Your task to perform on an android device: Add "apple airpods" to the cart on target Image 0: 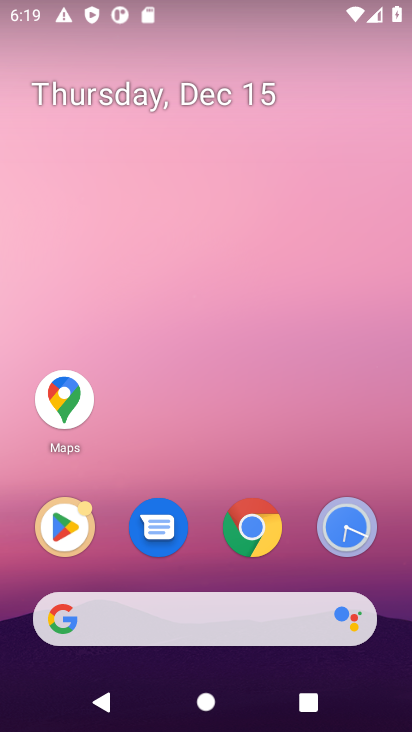
Step 0: click (249, 543)
Your task to perform on an android device: Add "apple airpods" to the cart on target Image 1: 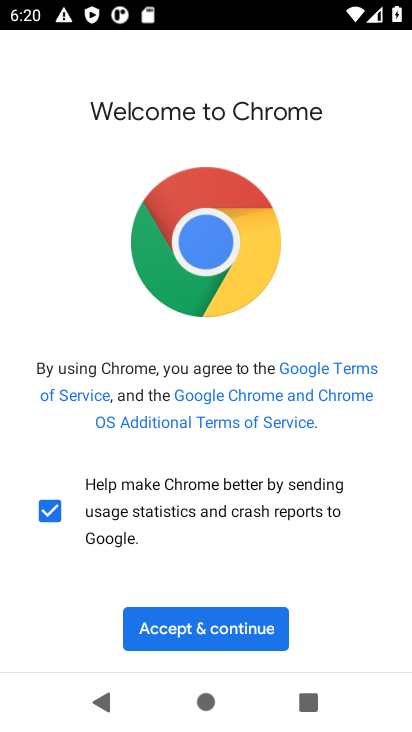
Step 1: task complete